Your task to perform on an android device: manage bookmarks in the chrome app Image 0: 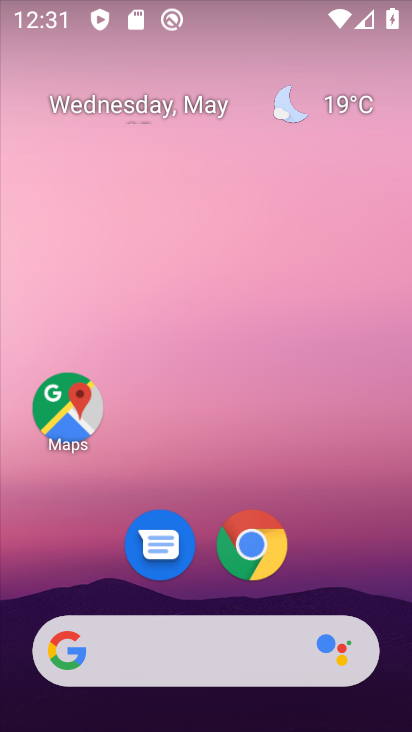
Step 0: click (255, 549)
Your task to perform on an android device: manage bookmarks in the chrome app Image 1: 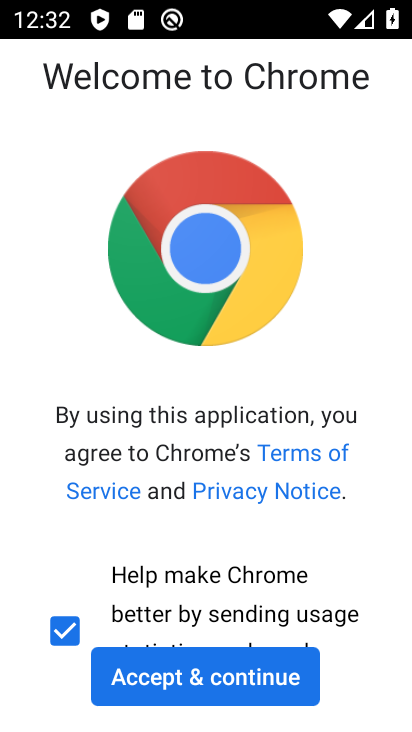
Step 1: click (160, 675)
Your task to perform on an android device: manage bookmarks in the chrome app Image 2: 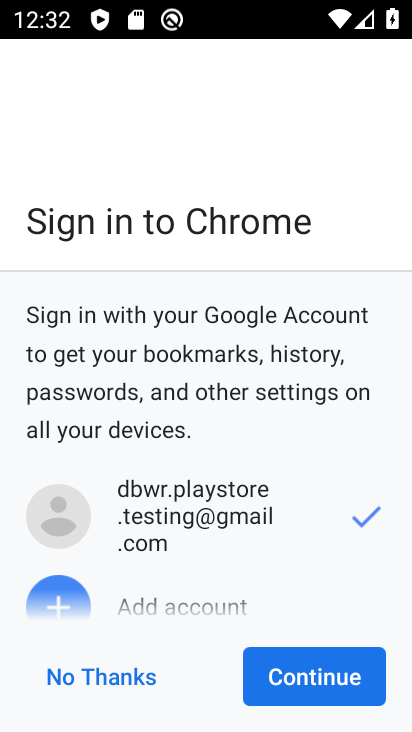
Step 2: click (284, 687)
Your task to perform on an android device: manage bookmarks in the chrome app Image 3: 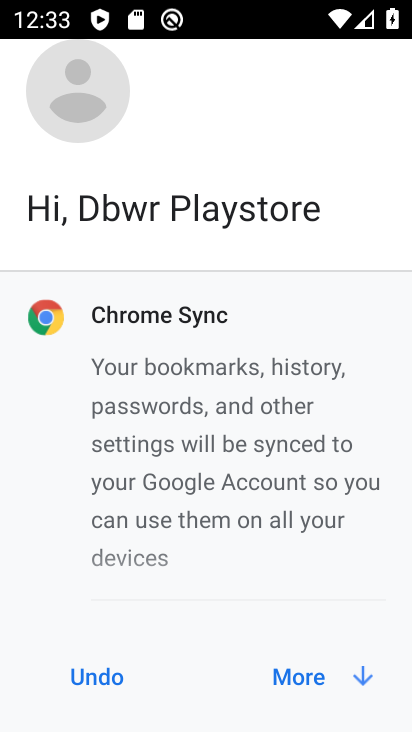
Step 3: click (284, 687)
Your task to perform on an android device: manage bookmarks in the chrome app Image 4: 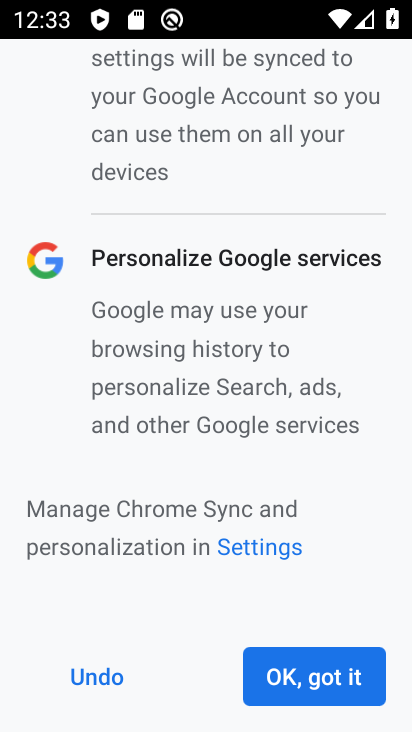
Step 4: click (284, 687)
Your task to perform on an android device: manage bookmarks in the chrome app Image 5: 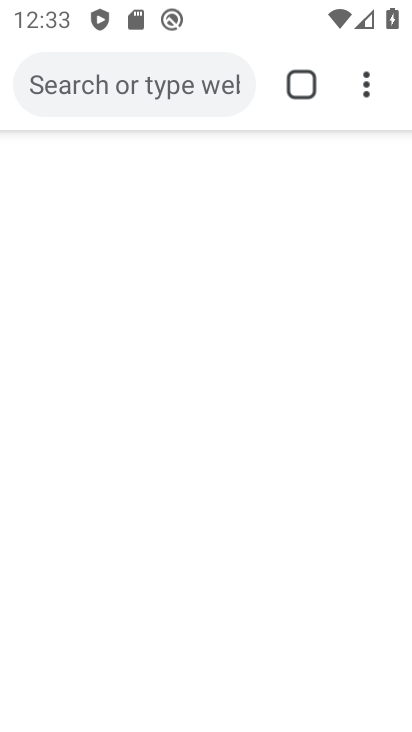
Step 5: click (284, 687)
Your task to perform on an android device: manage bookmarks in the chrome app Image 6: 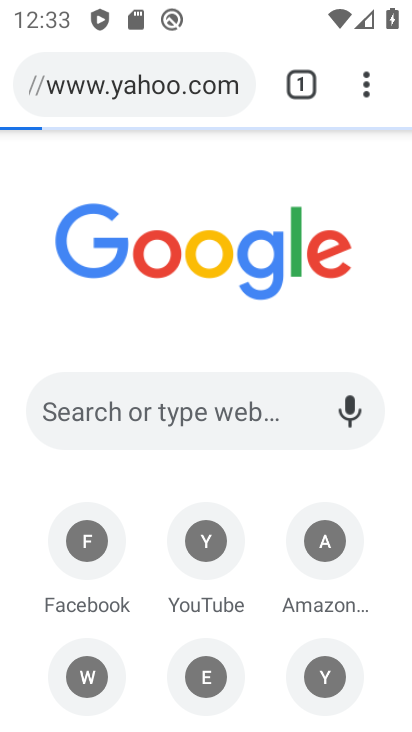
Step 6: click (284, 687)
Your task to perform on an android device: manage bookmarks in the chrome app Image 7: 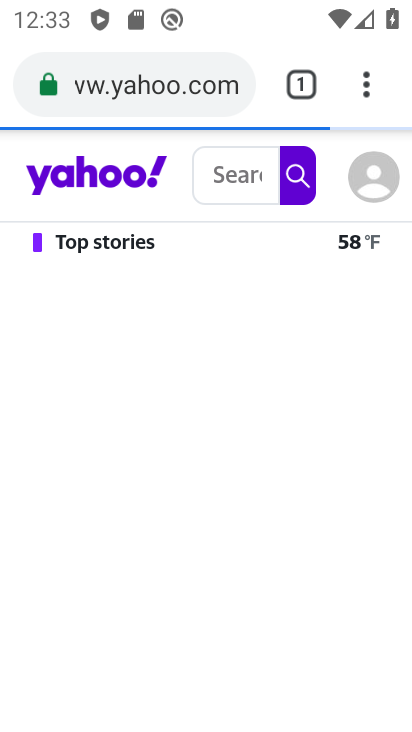
Step 7: click (377, 91)
Your task to perform on an android device: manage bookmarks in the chrome app Image 8: 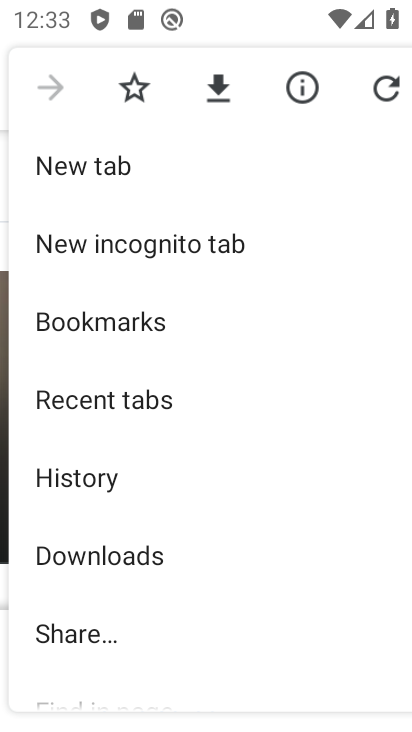
Step 8: click (173, 340)
Your task to perform on an android device: manage bookmarks in the chrome app Image 9: 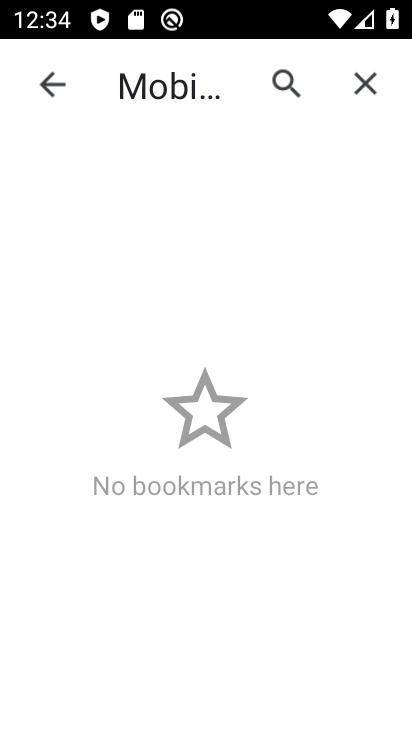
Step 9: task complete